Your task to perform on an android device: open a new tab in the chrome app Image 0: 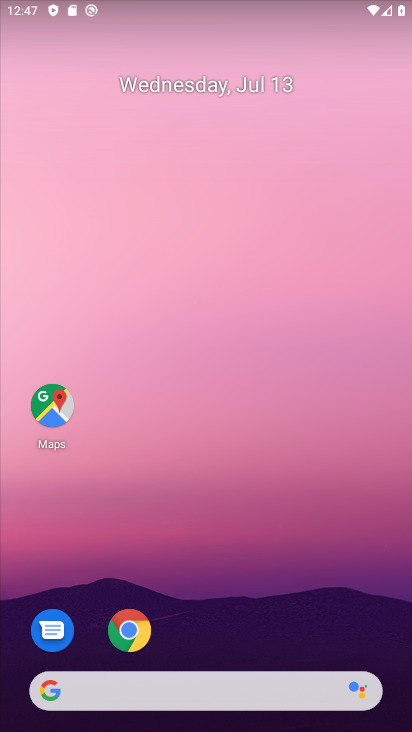
Step 0: drag from (376, 555) to (271, 74)
Your task to perform on an android device: open a new tab in the chrome app Image 1: 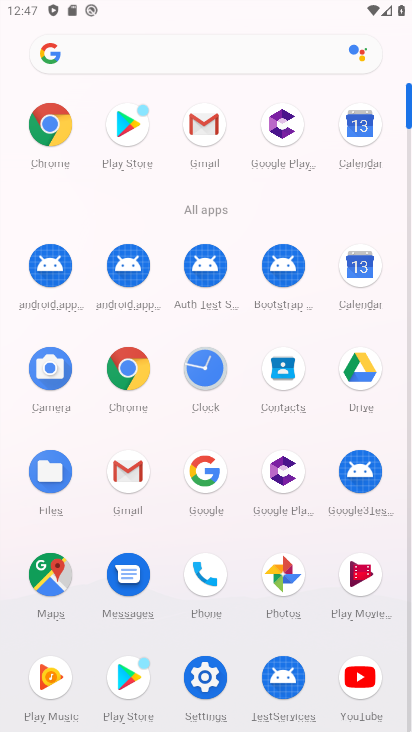
Step 1: click (44, 122)
Your task to perform on an android device: open a new tab in the chrome app Image 2: 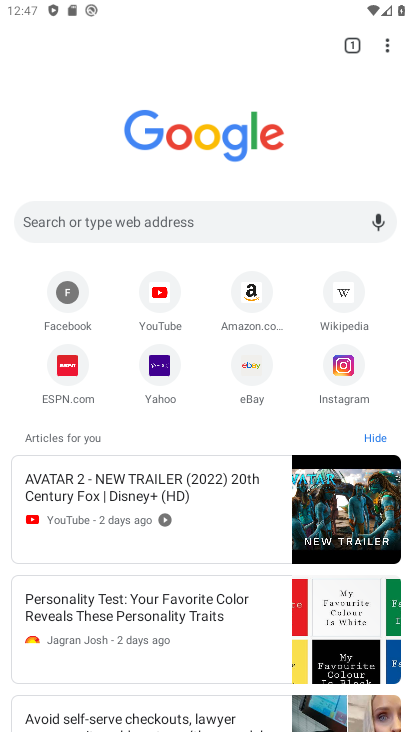
Step 2: task complete